Your task to perform on an android device: Turn off the flashlight Image 0: 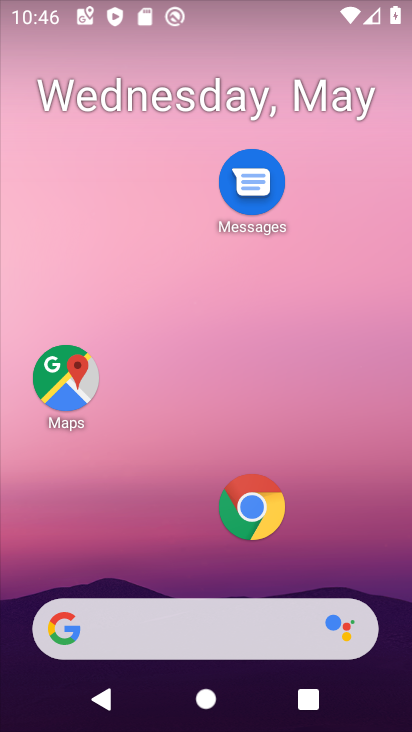
Step 0: press home button
Your task to perform on an android device: Turn off the flashlight Image 1: 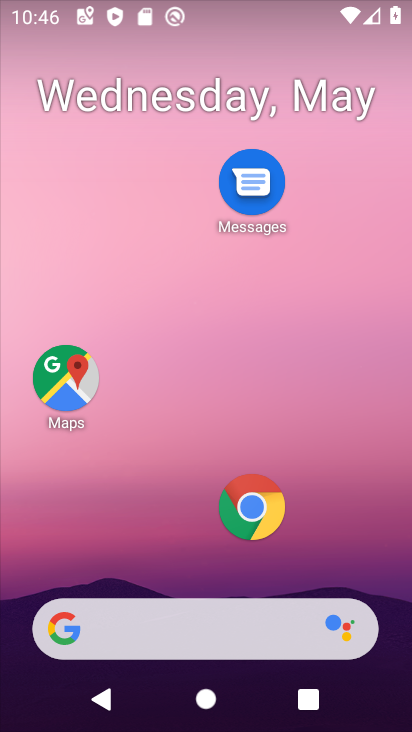
Step 1: drag from (205, 570) to (200, 98)
Your task to perform on an android device: Turn off the flashlight Image 2: 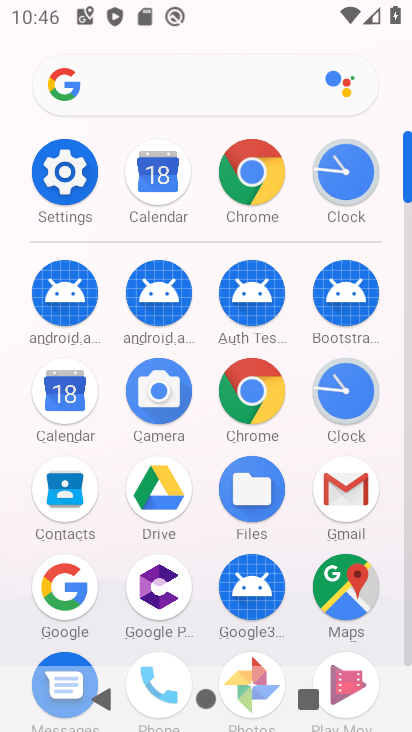
Step 2: click (63, 165)
Your task to perform on an android device: Turn off the flashlight Image 3: 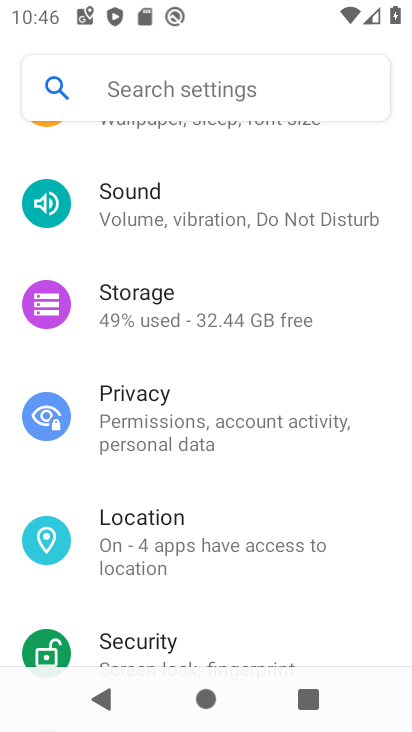
Step 3: drag from (215, 631) to (259, 99)
Your task to perform on an android device: Turn off the flashlight Image 4: 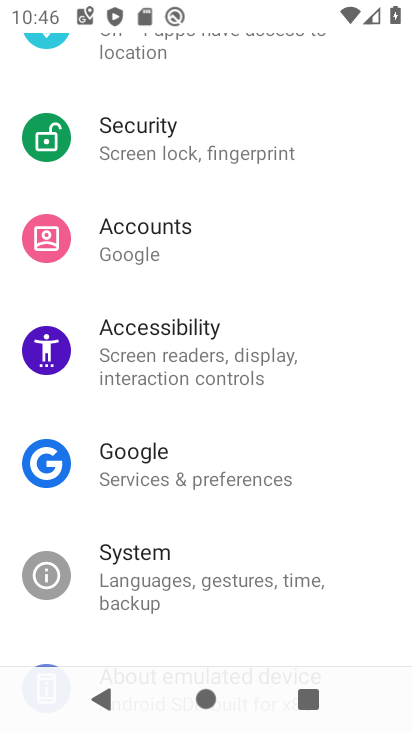
Step 4: drag from (201, 636) to (206, 99)
Your task to perform on an android device: Turn off the flashlight Image 5: 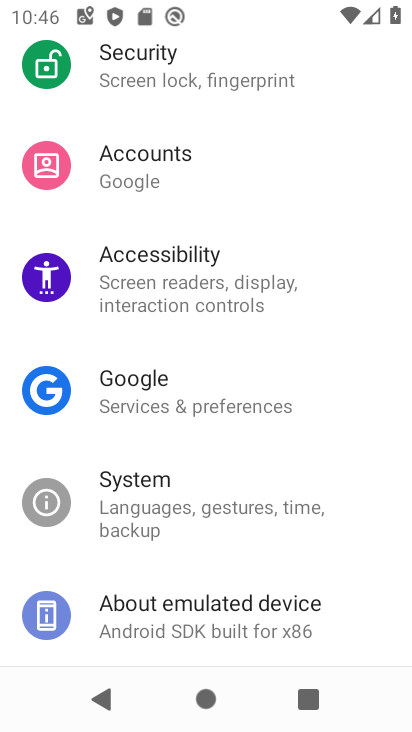
Step 5: drag from (170, 113) to (208, 159)
Your task to perform on an android device: Turn off the flashlight Image 6: 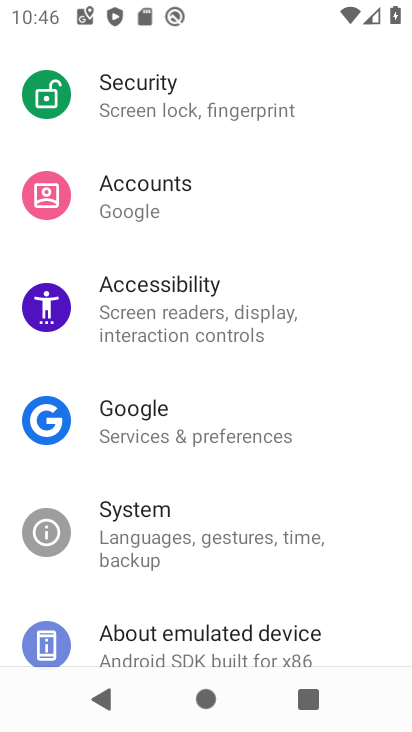
Step 6: drag from (174, 87) to (202, 374)
Your task to perform on an android device: Turn off the flashlight Image 7: 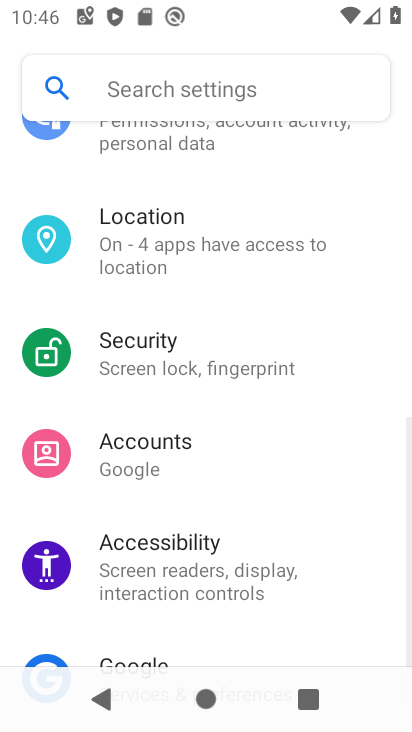
Step 7: click (152, 79)
Your task to perform on an android device: Turn off the flashlight Image 8: 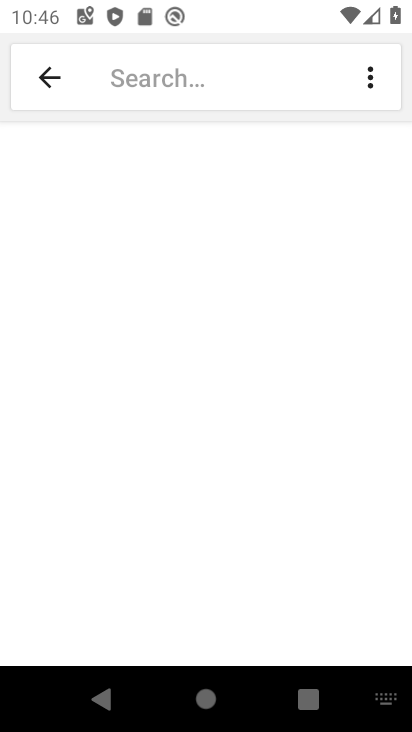
Step 8: type "flashlight"
Your task to perform on an android device: Turn off the flashlight Image 9: 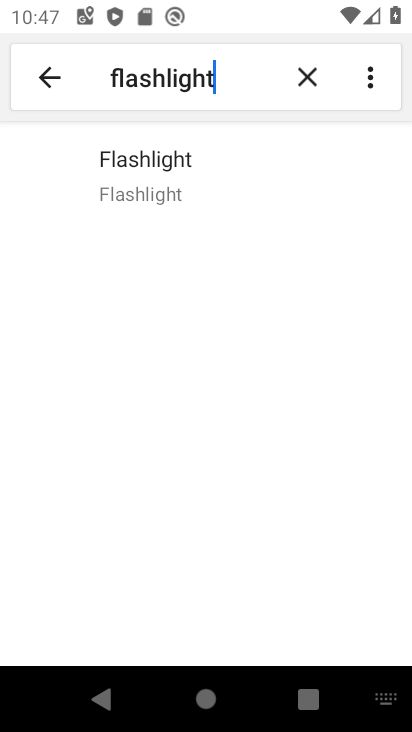
Step 9: click (193, 173)
Your task to perform on an android device: Turn off the flashlight Image 10: 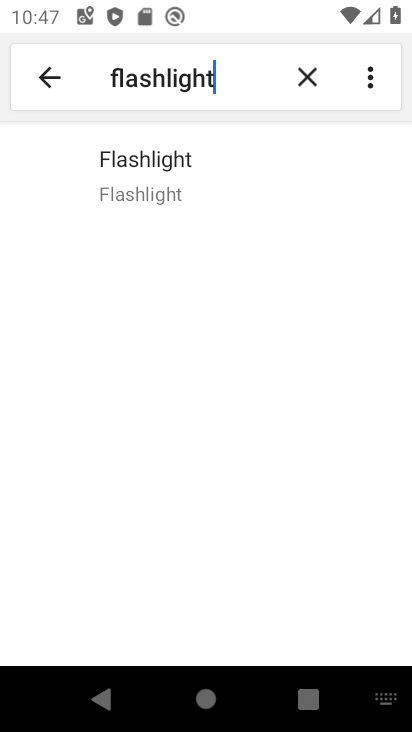
Step 10: task complete